Your task to perform on an android device: When is my next meeting? Image 0: 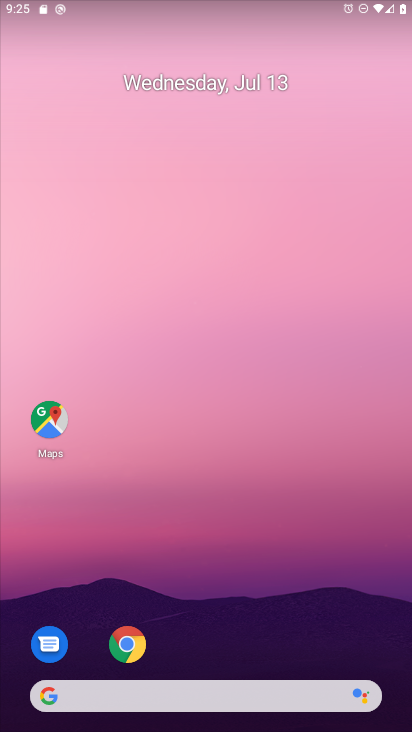
Step 0: press home button
Your task to perform on an android device: When is my next meeting? Image 1: 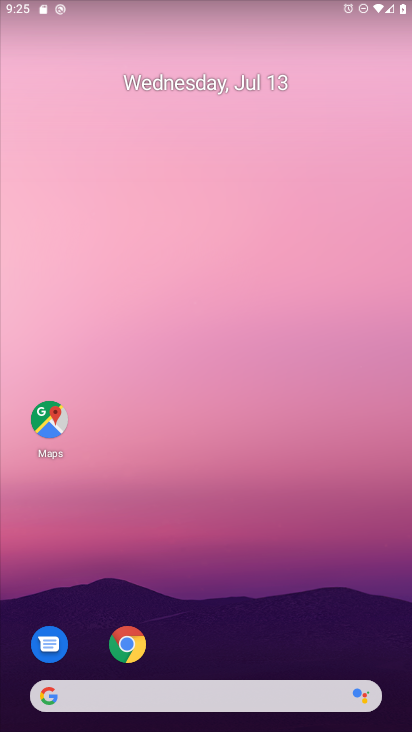
Step 1: drag from (318, 580) to (310, 89)
Your task to perform on an android device: When is my next meeting? Image 2: 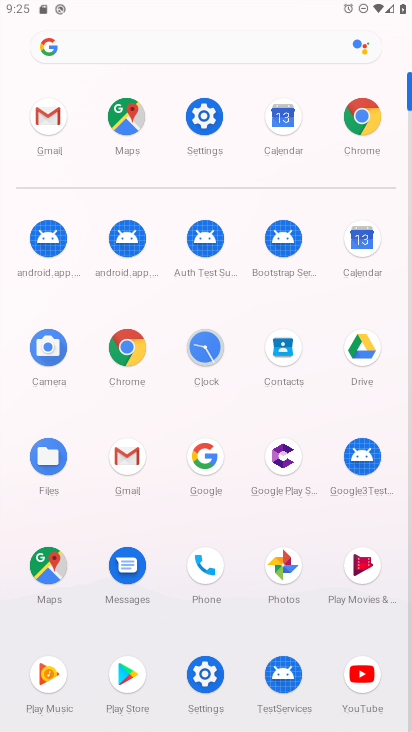
Step 2: click (345, 239)
Your task to perform on an android device: When is my next meeting? Image 3: 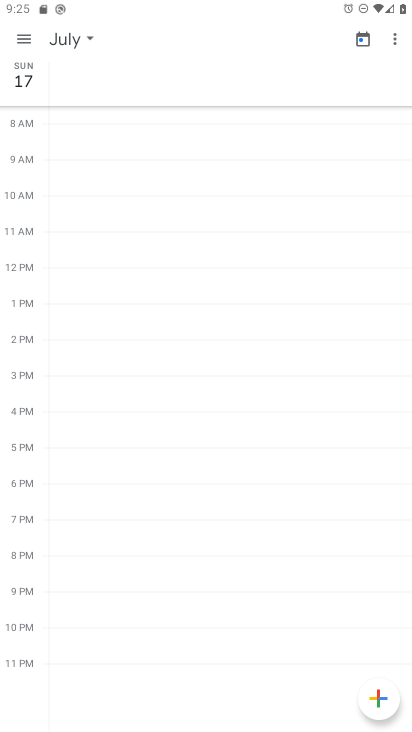
Step 3: click (19, 49)
Your task to perform on an android device: When is my next meeting? Image 4: 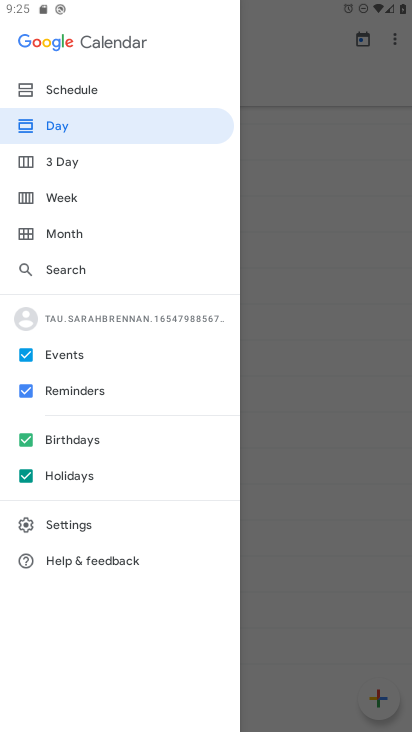
Step 4: click (79, 87)
Your task to perform on an android device: When is my next meeting? Image 5: 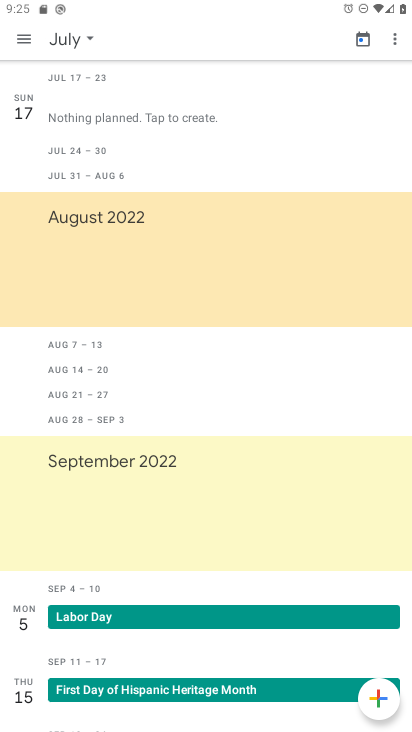
Step 5: task complete